Your task to perform on an android device: Open maps Image 0: 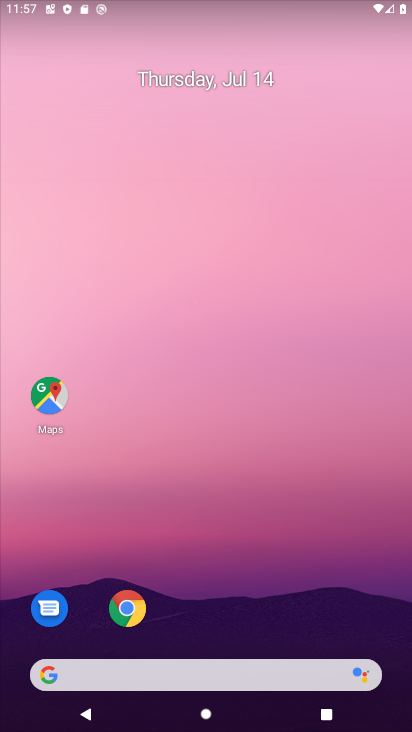
Step 0: click (56, 400)
Your task to perform on an android device: Open maps Image 1: 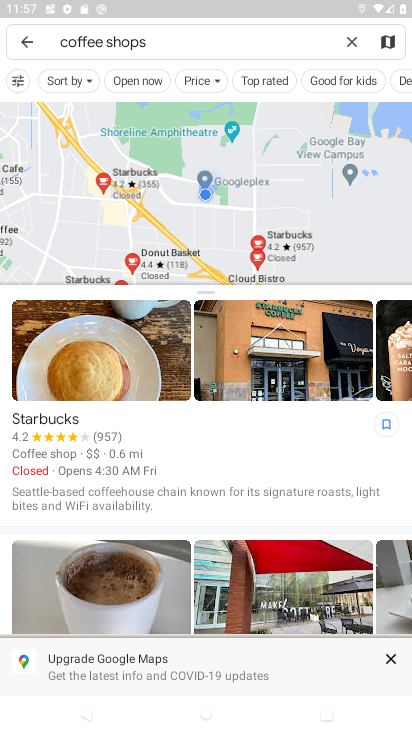
Step 1: task complete